Your task to perform on an android device: toggle priority inbox in the gmail app Image 0: 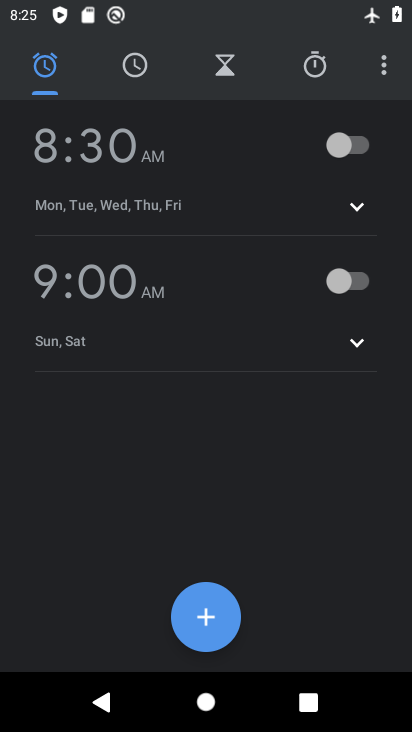
Step 0: press home button
Your task to perform on an android device: toggle priority inbox in the gmail app Image 1: 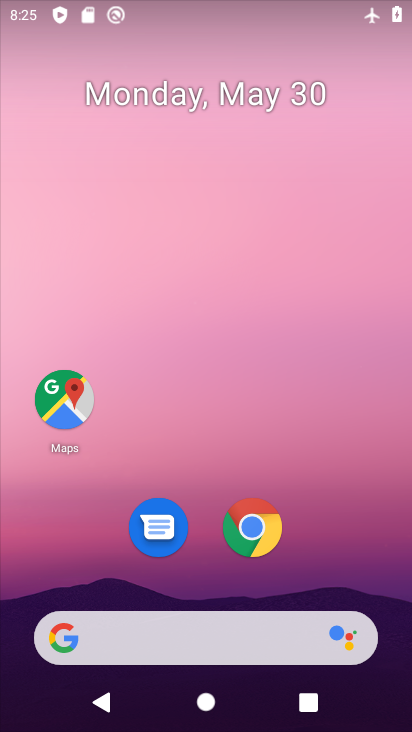
Step 1: drag from (325, 568) to (316, 46)
Your task to perform on an android device: toggle priority inbox in the gmail app Image 2: 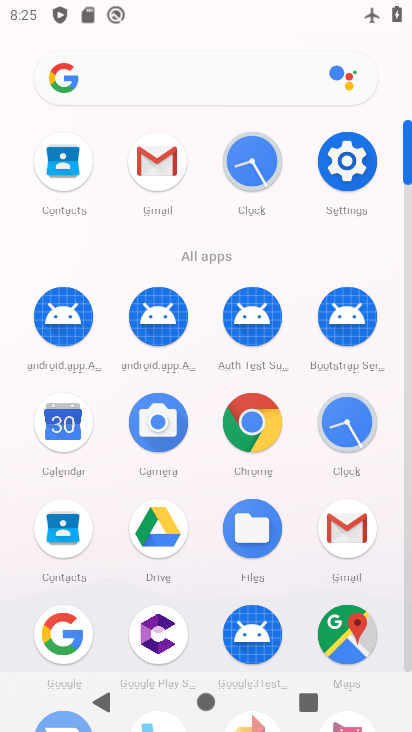
Step 2: click (357, 523)
Your task to perform on an android device: toggle priority inbox in the gmail app Image 3: 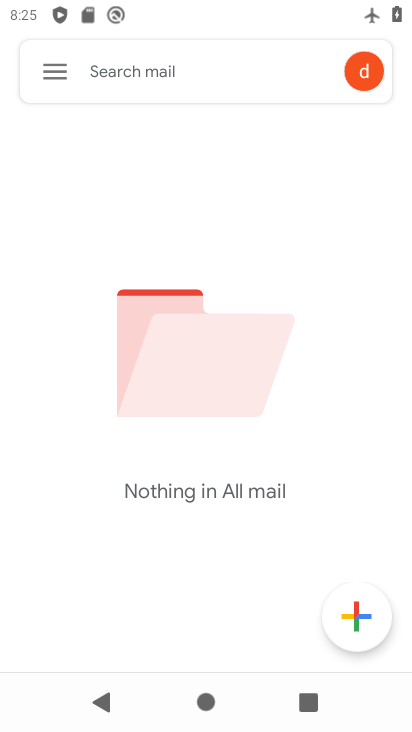
Step 3: click (53, 71)
Your task to perform on an android device: toggle priority inbox in the gmail app Image 4: 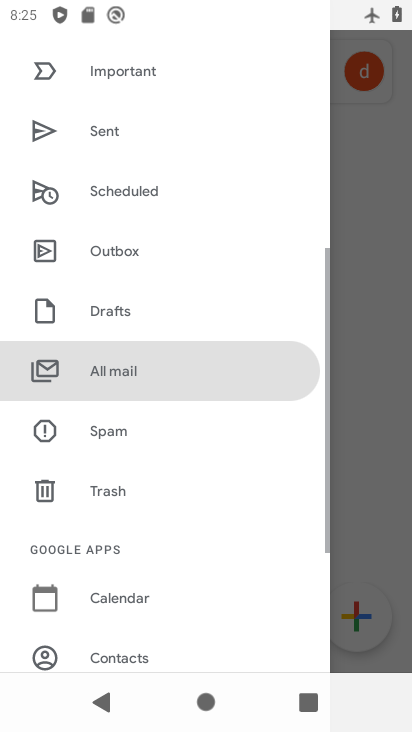
Step 4: drag from (128, 572) to (173, 118)
Your task to perform on an android device: toggle priority inbox in the gmail app Image 5: 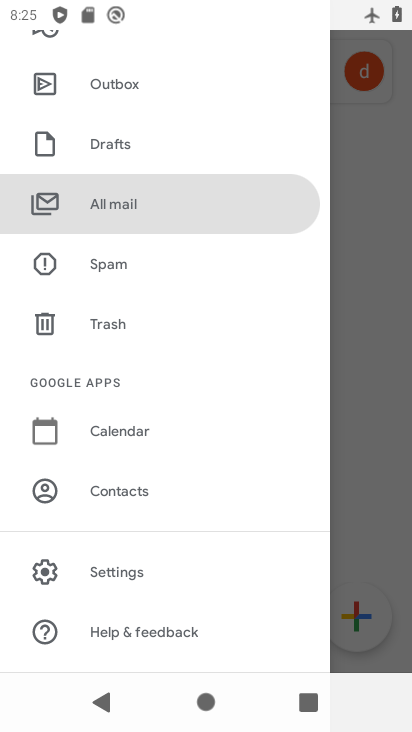
Step 5: click (135, 579)
Your task to perform on an android device: toggle priority inbox in the gmail app Image 6: 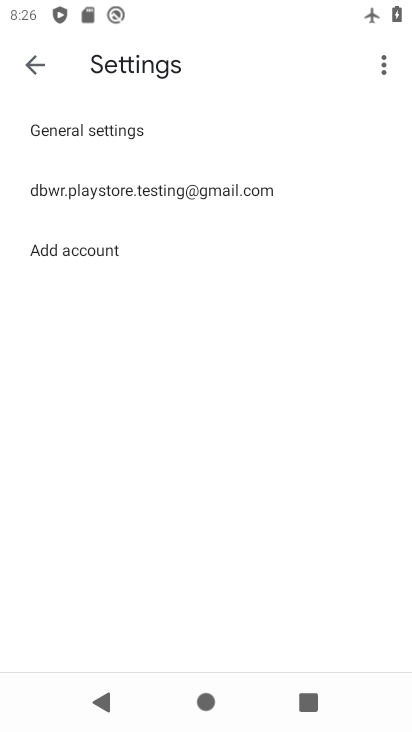
Step 6: click (157, 203)
Your task to perform on an android device: toggle priority inbox in the gmail app Image 7: 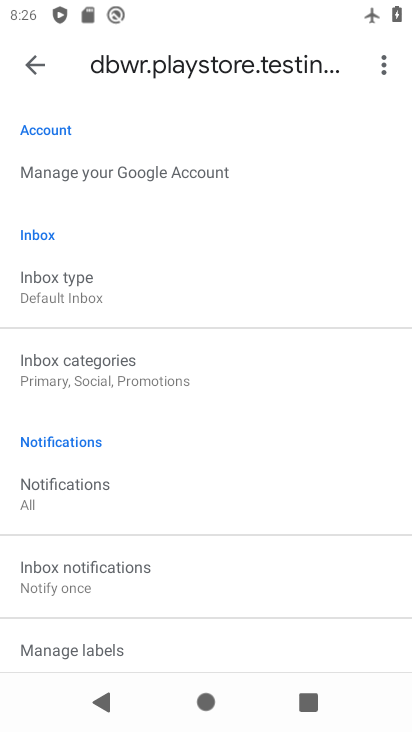
Step 7: click (95, 298)
Your task to perform on an android device: toggle priority inbox in the gmail app Image 8: 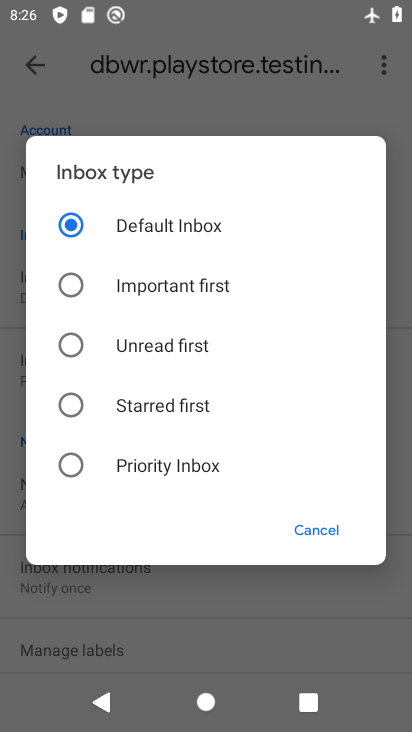
Step 8: click (144, 470)
Your task to perform on an android device: toggle priority inbox in the gmail app Image 9: 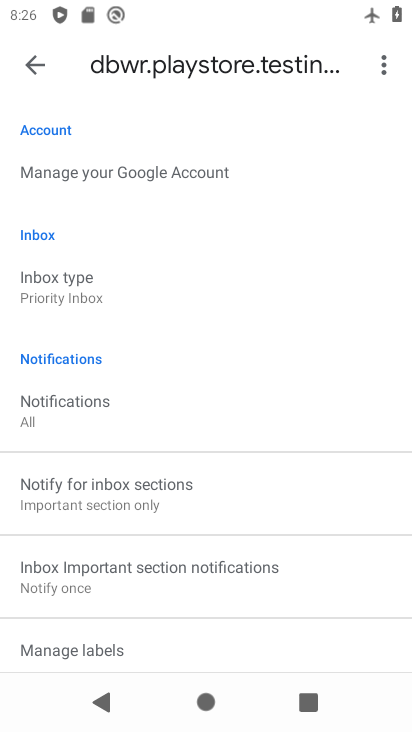
Step 9: task complete